Your task to perform on an android device: Empty the shopping cart on amazon.com. Image 0: 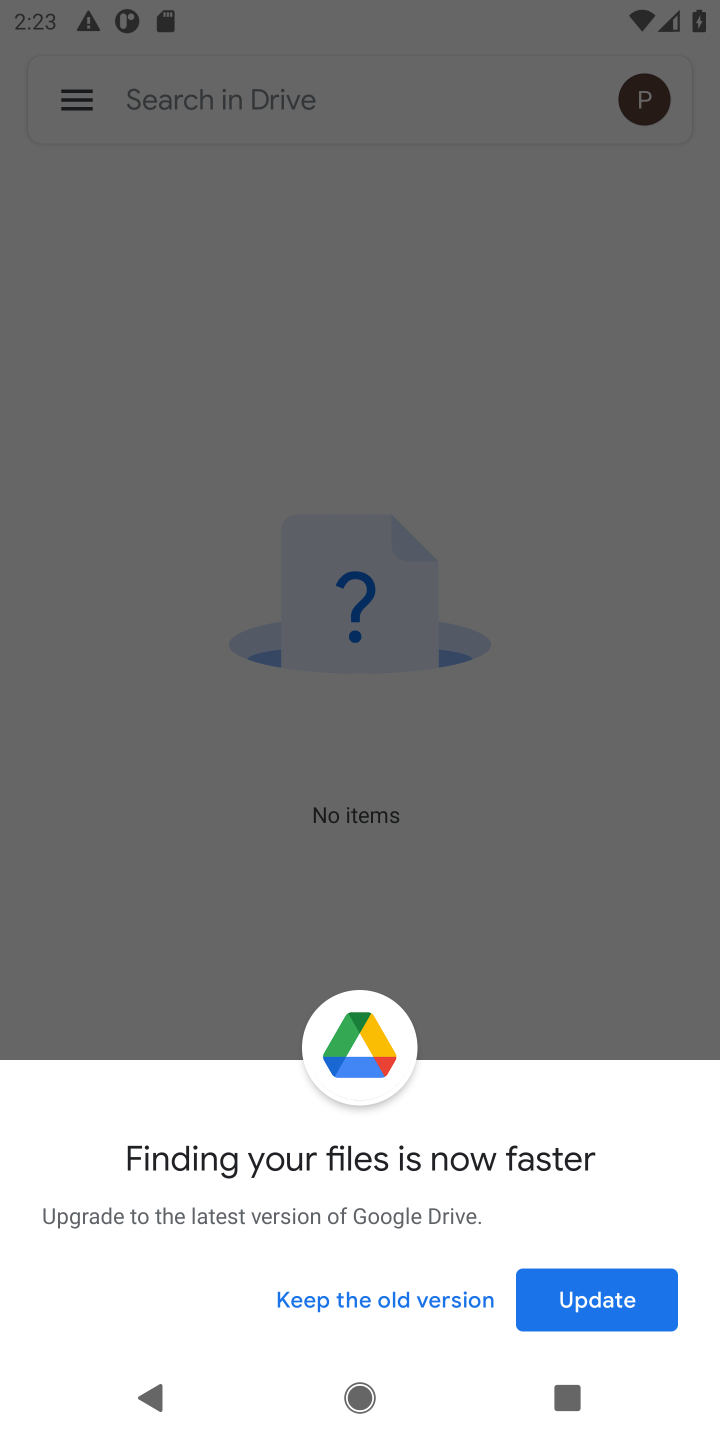
Step 0: press home button
Your task to perform on an android device: Empty the shopping cart on amazon.com. Image 1: 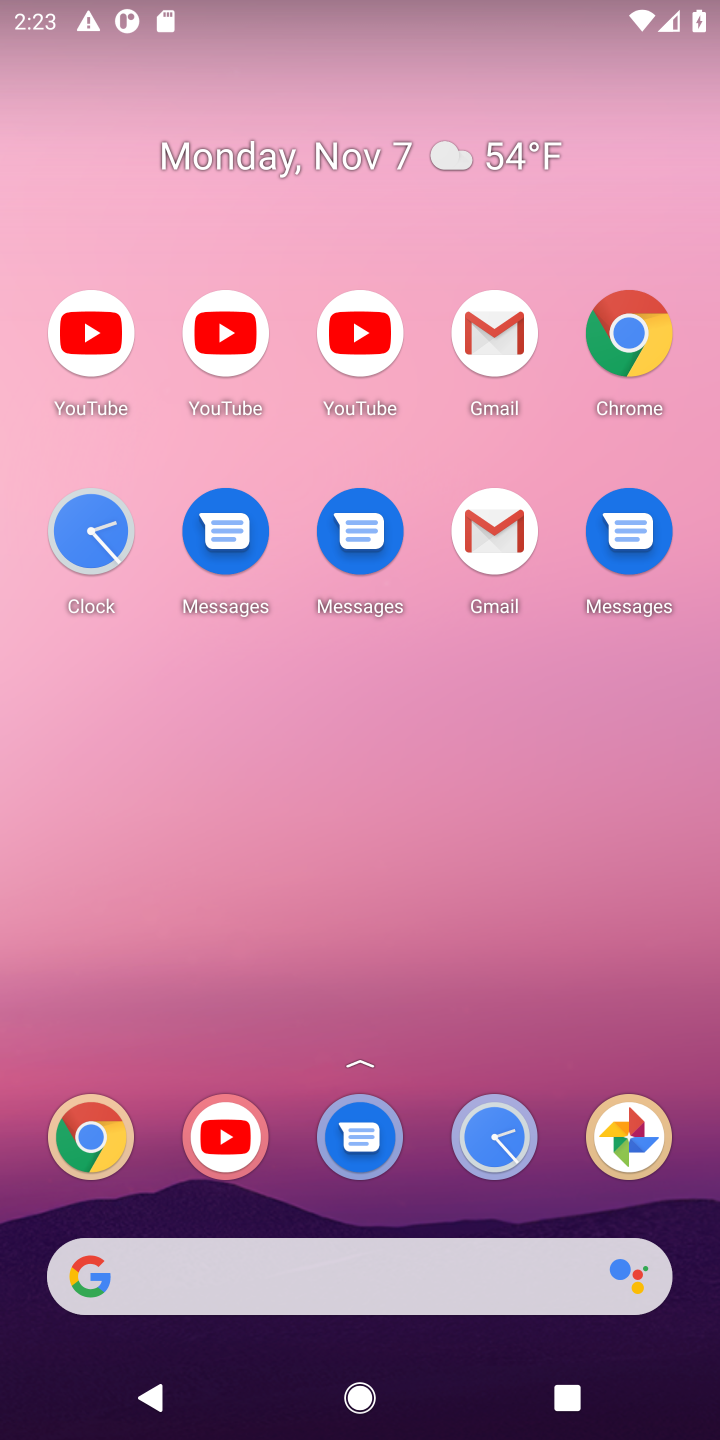
Step 1: drag from (423, 1224) to (464, 257)
Your task to perform on an android device: Empty the shopping cart on amazon.com. Image 2: 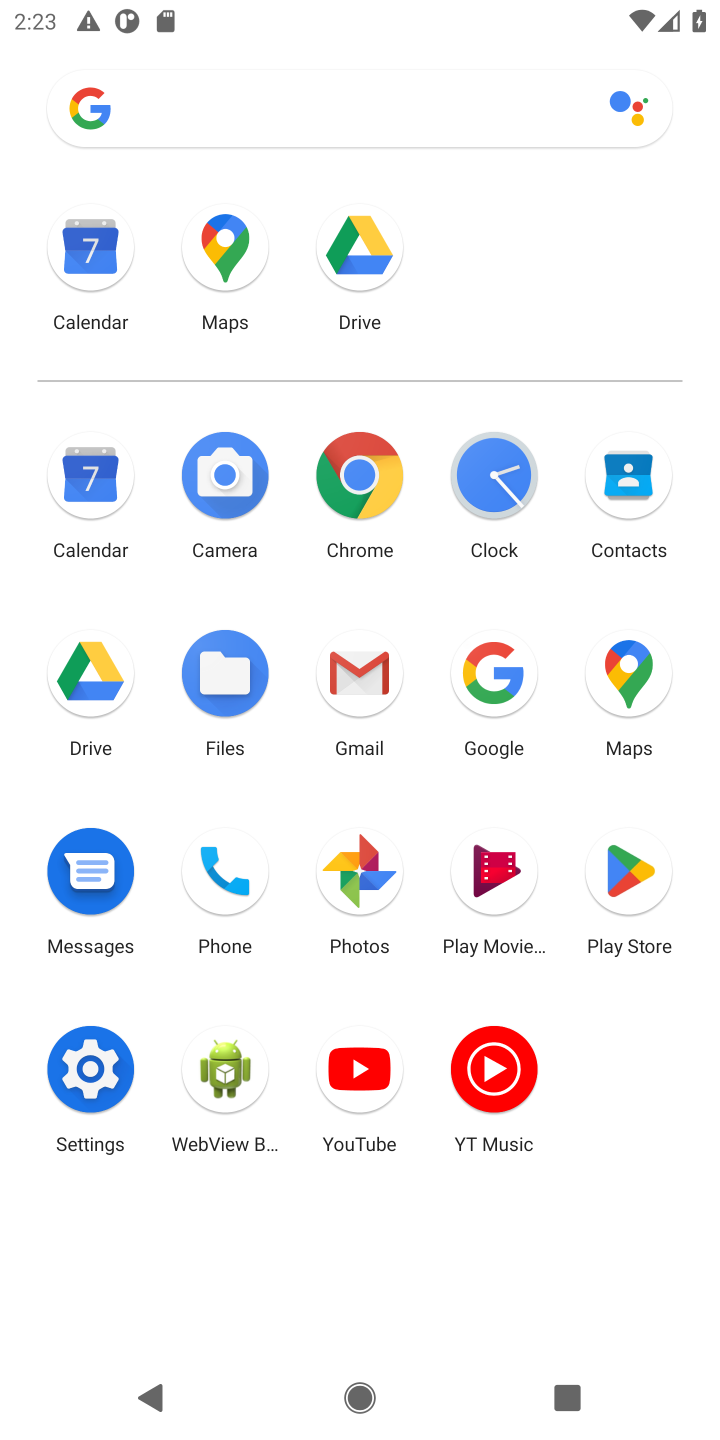
Step 2: click (351, 489)
Your task to perform on an android device: Empty the shopping cart on amazon.com. Image 3: 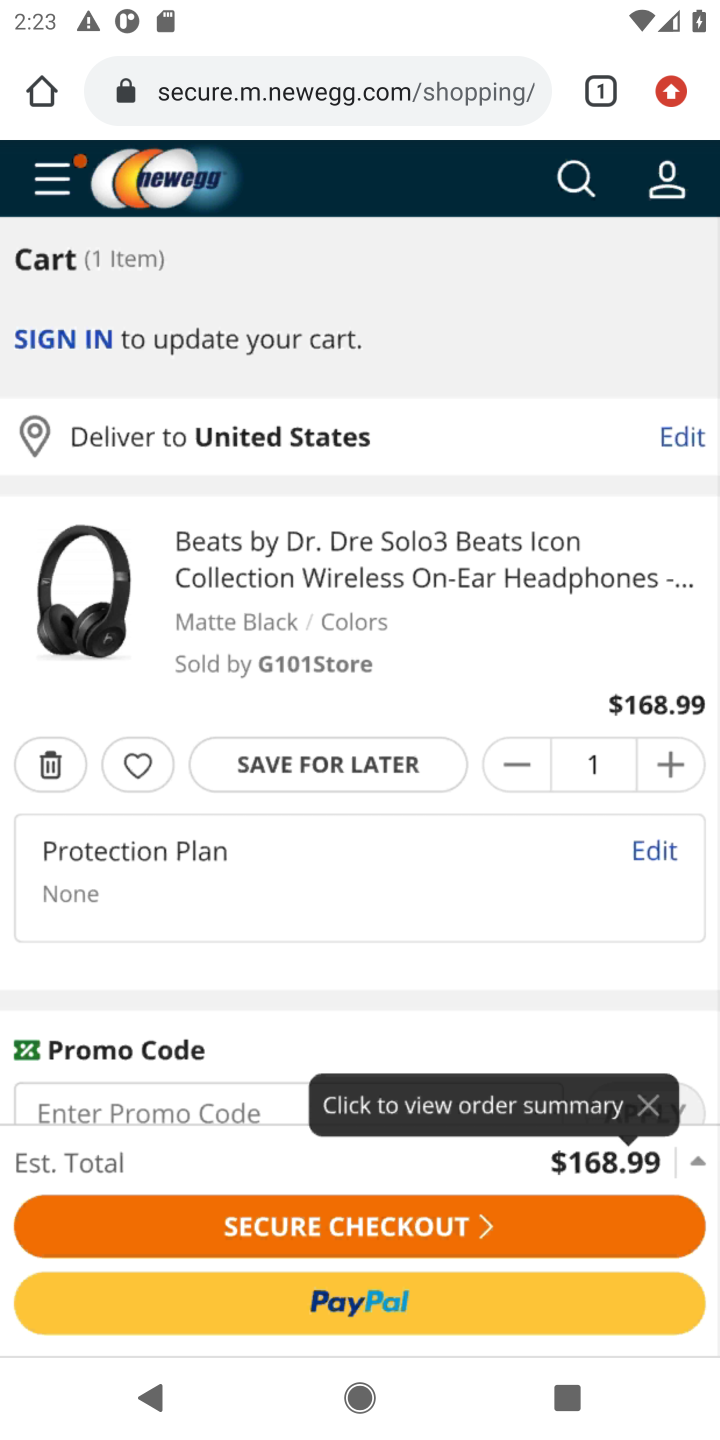
Step 3: click (385, 93)
Your task to perform on an android device: Empty the shopping cart on amazon.com. Image 4: 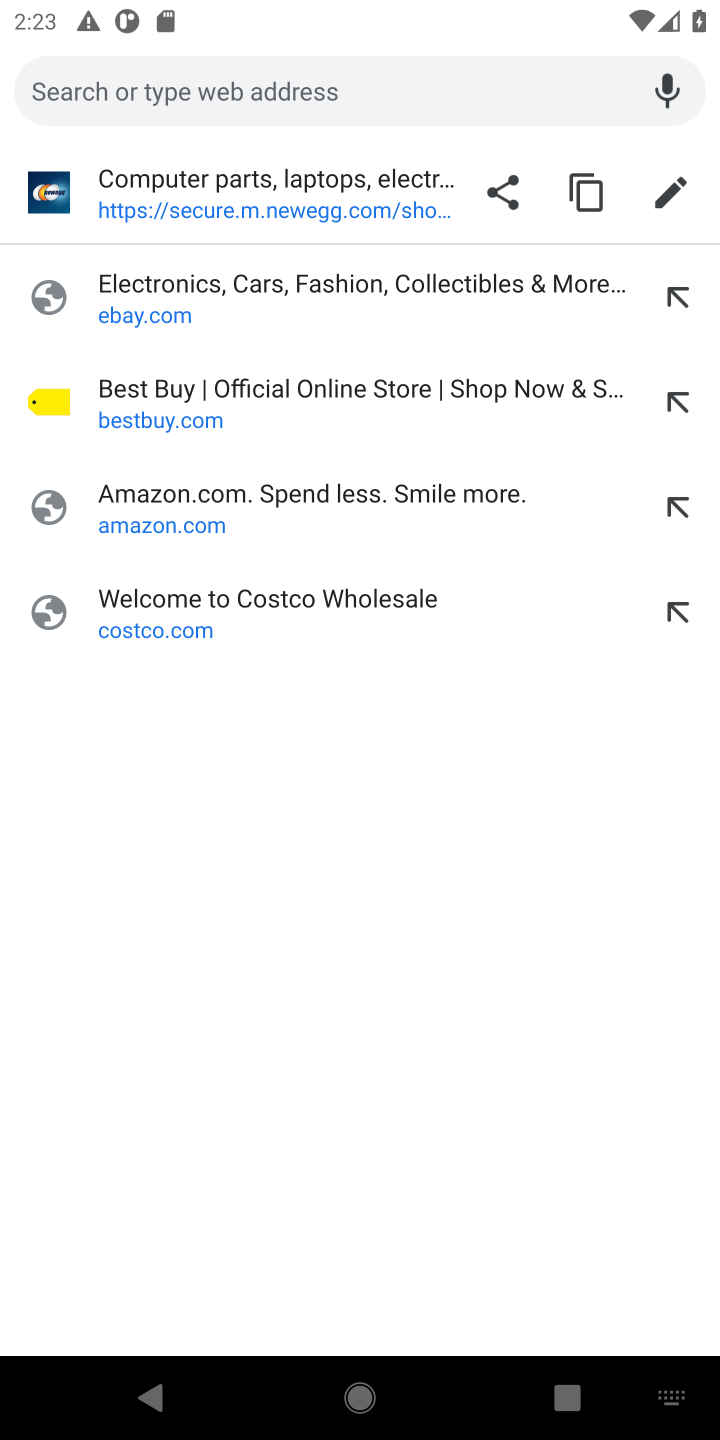
Step 4: type "amazon.com"
Your task to perform on an android device: Empty the shopping cart on amazon.com. Image 5: 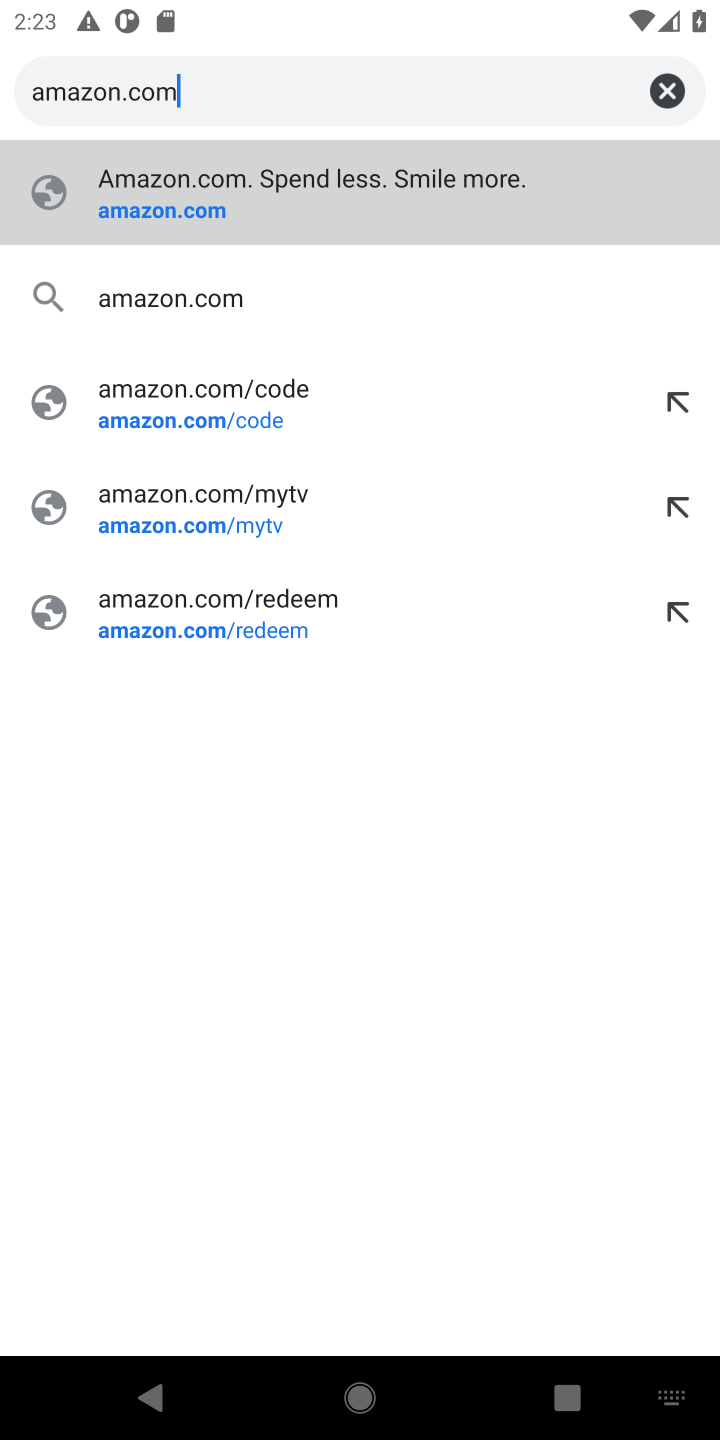
Step 5: press enter
Your task to perform on an android device: Empty the shopping cart on amazon.com. Image 6: 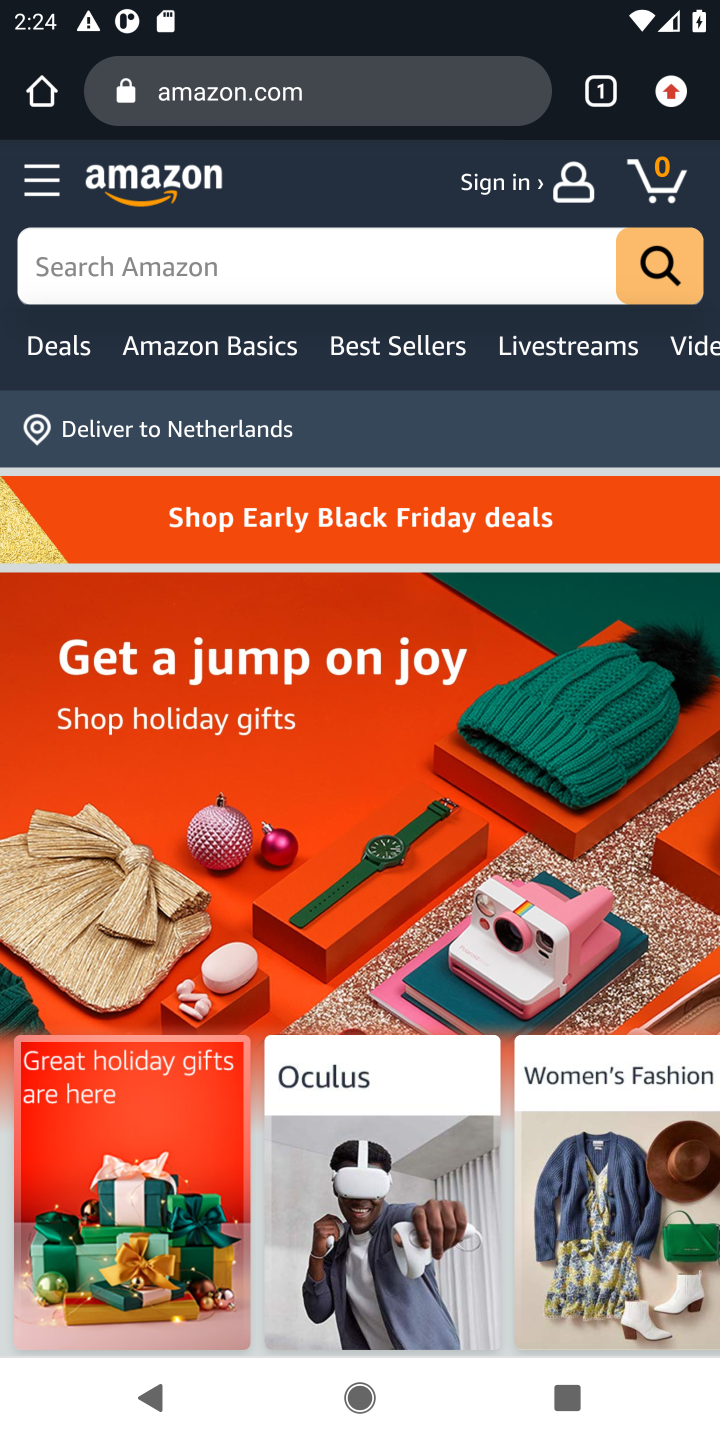
Step 6: click (650, 183)
Your task to perform on an android device: Empty the shopping cart on amazon.com. Image 7: 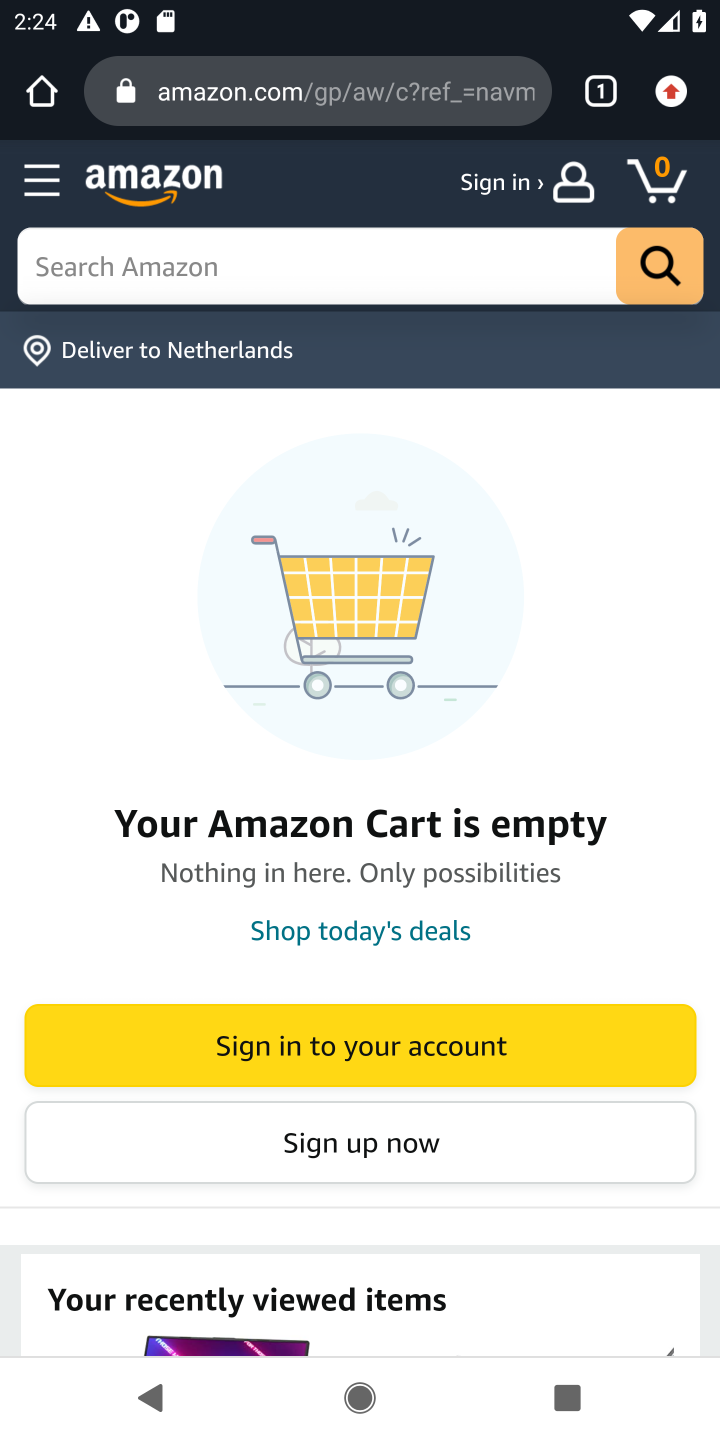
Step 7: task complete